Your task to perform on an android device: turn off javascript in the chrome app Image 0: 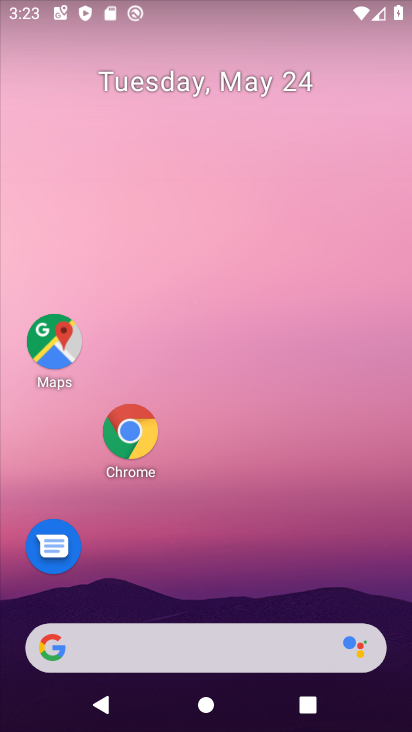
Step 0: drag from (212, 597) to (269, 16)
Your task to perform on an android device: turn off javascript in the chrome app Image 1: 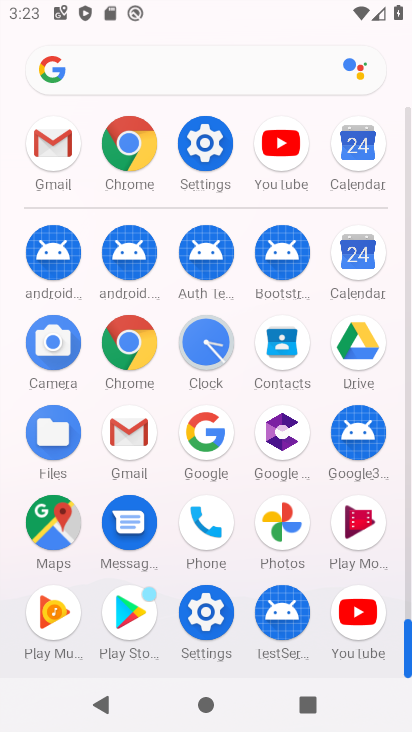
Step 1: click (126, 352)
Your task to perform on an android device: turn off javascript in the chrome app Image 2: 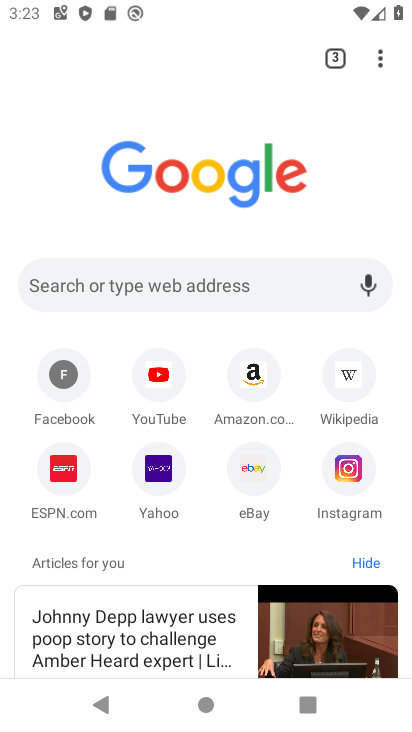
Step 2: click (385, 54)
Your task to perform on an android device: turn off javascript in the chrome app Image 3: 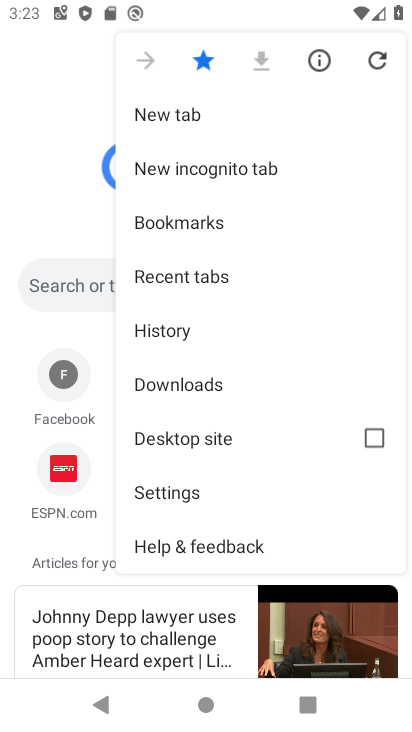
Step 3: drag from (220, 498) to (304, 65)
Your task to perform on an android device: turn off javascript in the chrome app Image 4: 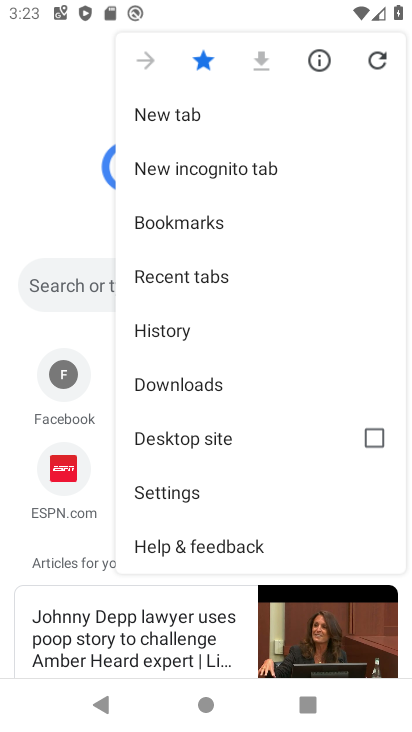
Step 4: click (184, 500)
Your task to perform on an android device: turn off javascript in the chrome app Image 5: 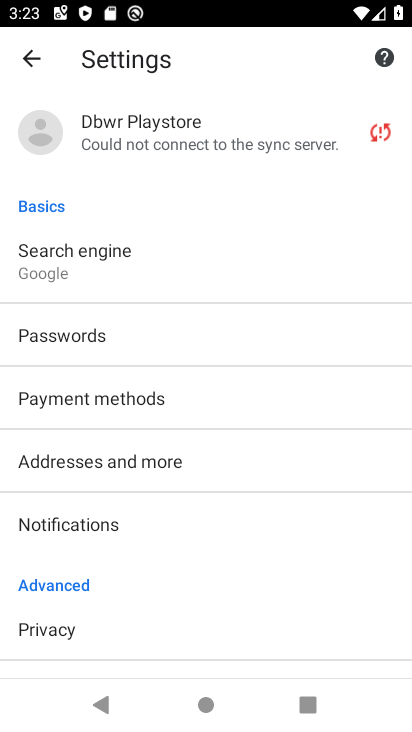
Step 5: drag from (140, 598) to (221, 133)
Your task to perform on an android device: turn off javascript in the chrome app Image 6: 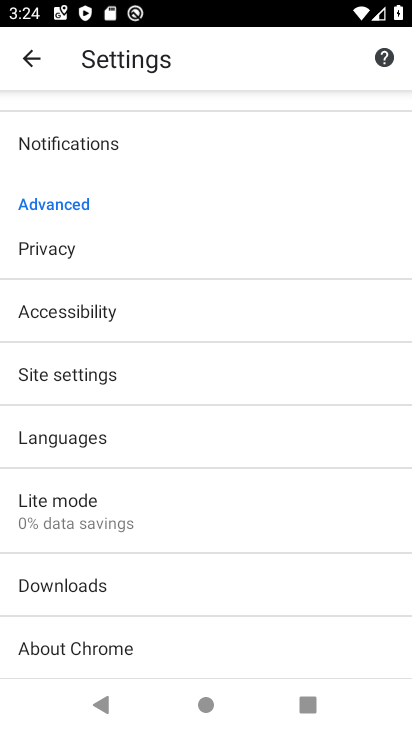
Step 6: drag from (154, 628) to (300, 251)
Your task to perform on an android device: turn off javascript in the chrome app Image 7: 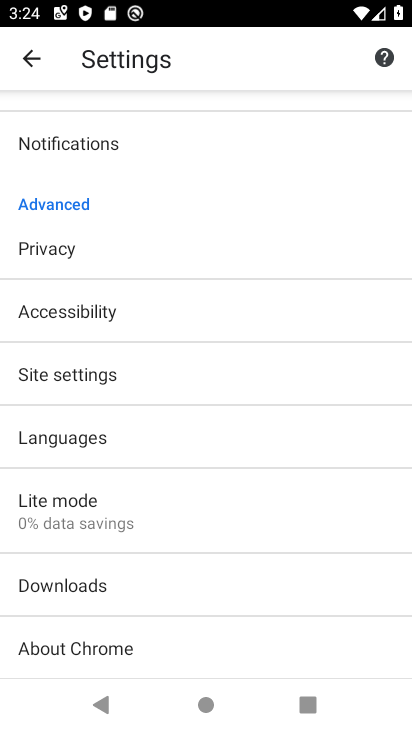
Step 7: click (128, 362)
Your task to perform on an android device: turn off javascript in the chrome app Image 8: 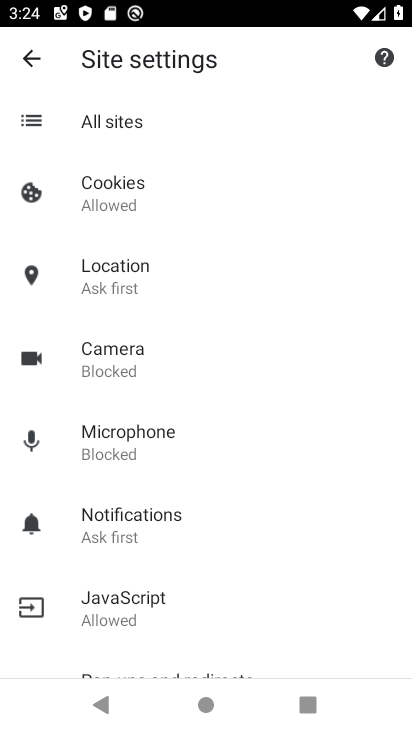
Step 8: drag from (298, 502) to (349, 154)
Your task to perform on an android device: turn off javascript in the chrome app Image 9: 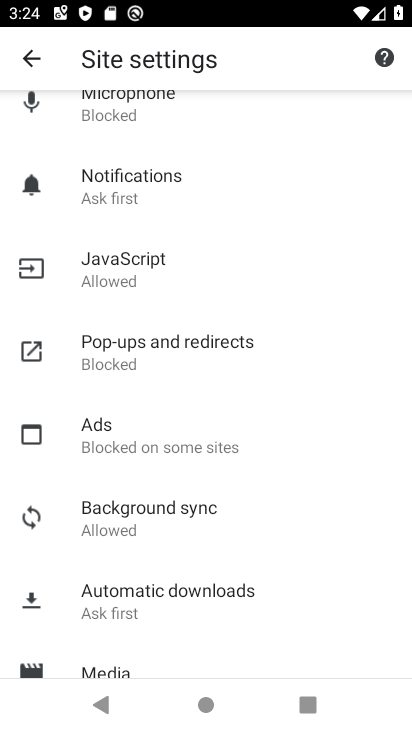
Step 9: click (124, 275)
Your task to perform on an android device: turn off javascript in the chrome app Image 10: 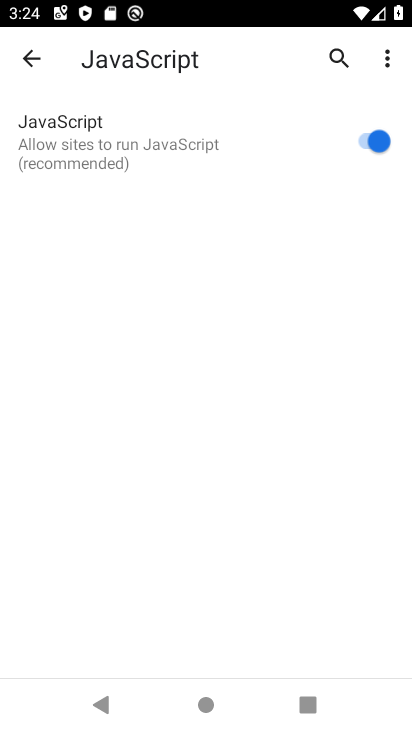
Step 10: click (384, 150)
Your task to perform on an android device: turn off javascript in the chrome app Image 11: 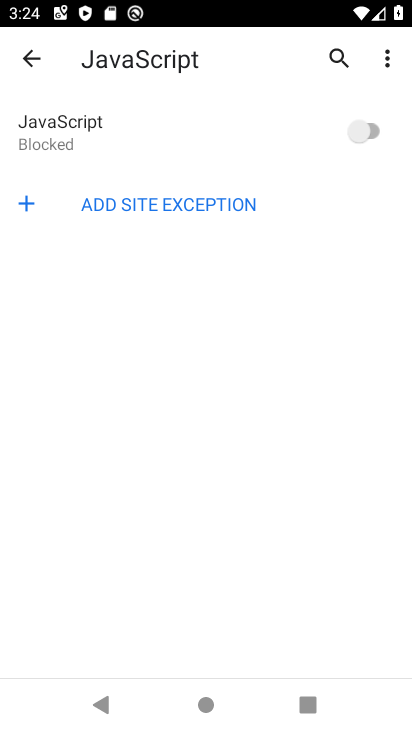
Step 11: task complete